Your task to perform on an android device: Search for vegetarian restaurants on Maps Image 0: 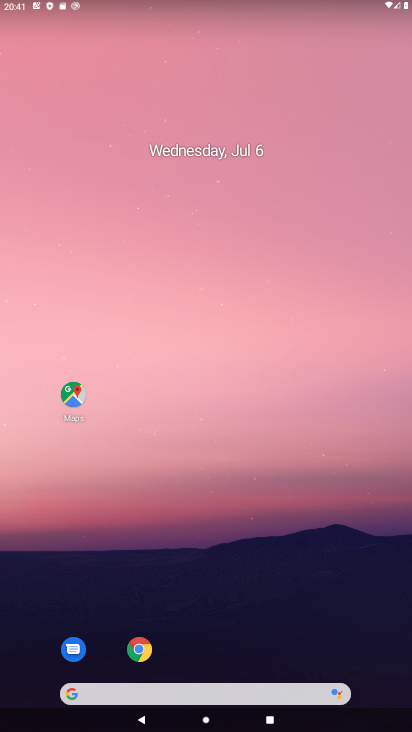
Step 0: click (73, 391)
Your task to perform on an android device: Search for vegetarian restaurants on Maps Image 1: 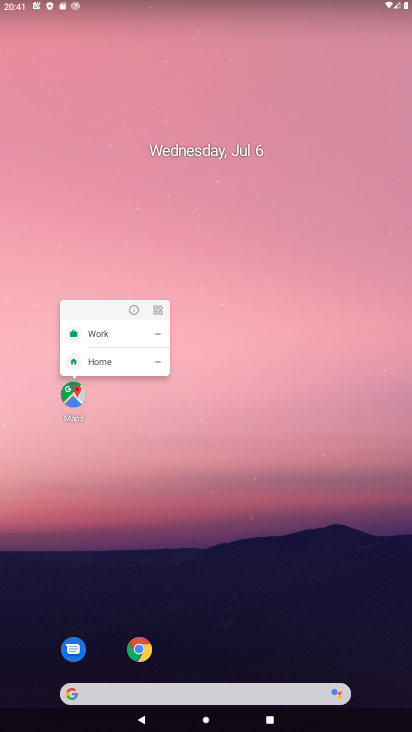
Step 1: click (73, 392)
Your task to perform on an android device: Search for vegetarian restaurants on Maps Image 2: 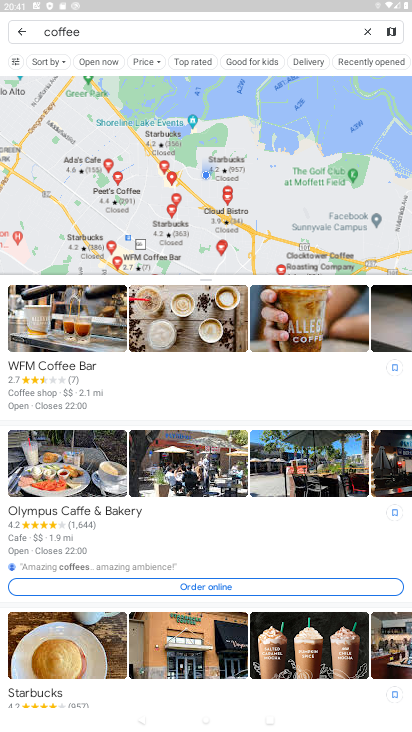
Step 2: click (369, 30)
Your task to perform on an android device: Search for vegetarian restaurants on Maps Image 3: 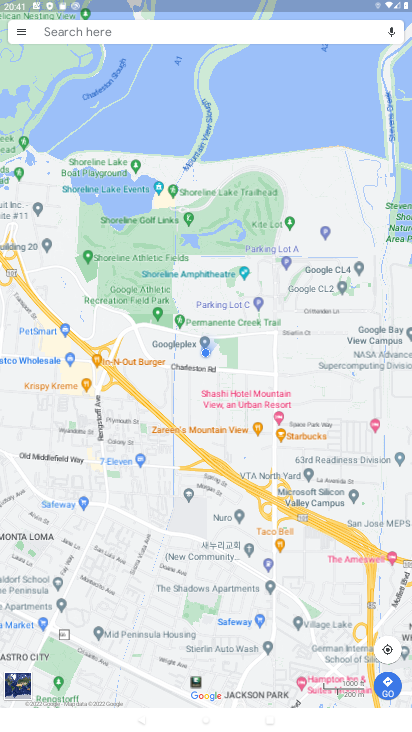
Step 3: click (307, 34)
Your task to perform on an android device: Search for vegetarian restaurants on Maps Image 4: 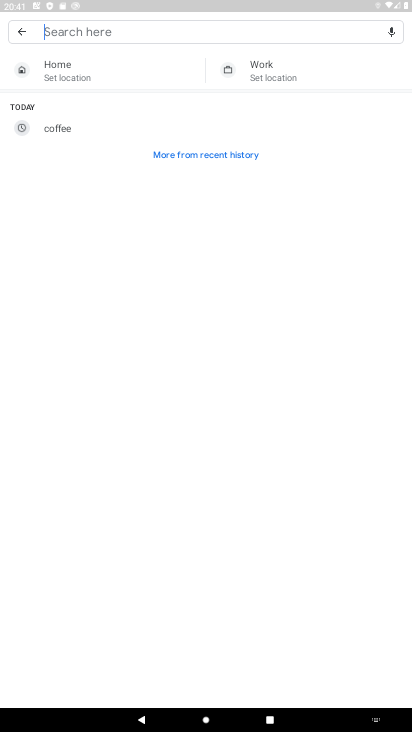
Step 4: type " vegetarian restaurants "
Your task to perform on an android device: Search for vegetarian restaurants on Maps Image 5: 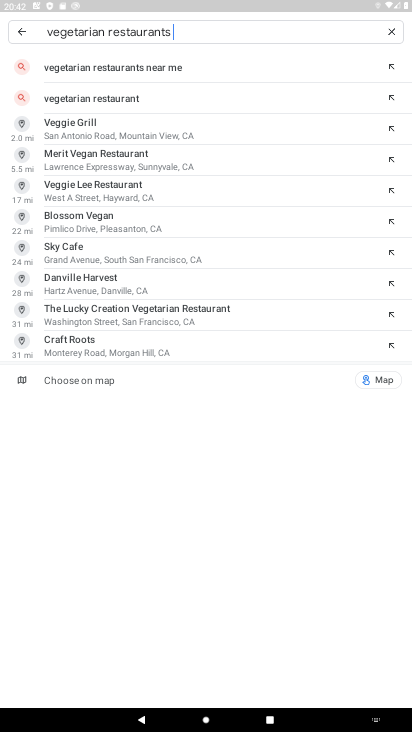
Step 5: click (134, 99)
Your task to perform on an android device: Search for vegetarian restaurants on Maps Image 6: 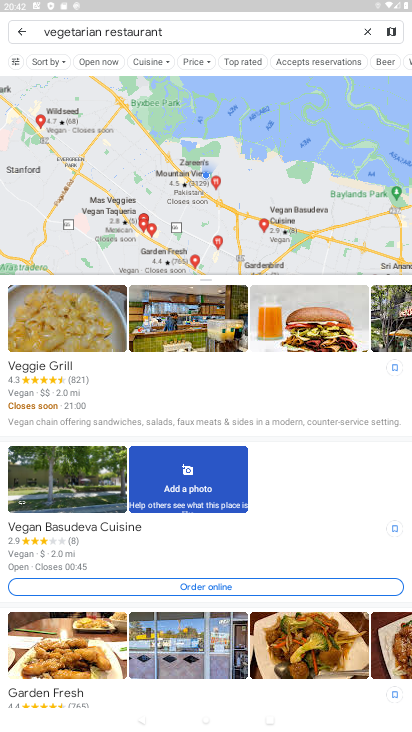
Step 6: task complete